Your task to perform on an android device: empty trash in the gmail app Image 0: 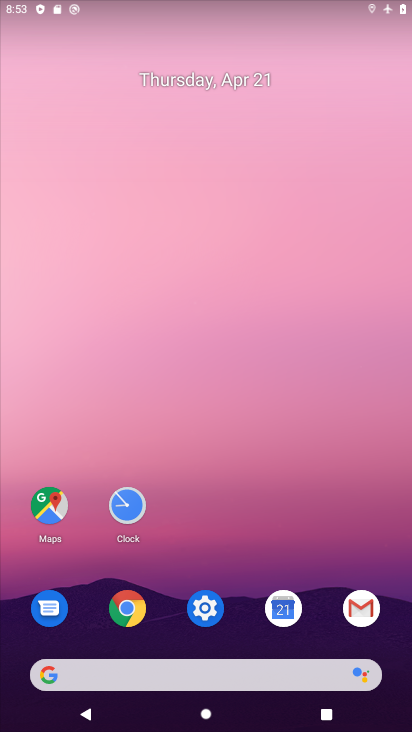
Step 0: click (360, 610)
Your task to perform on an android device: empty trash in the gmail app Image 1: 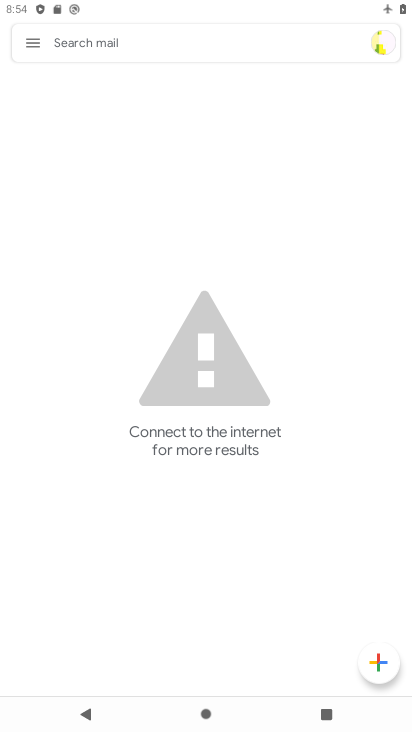
Step 1: click (29, 36)
Your task to perform on an android device: empty trash in the gmail app Image 2: 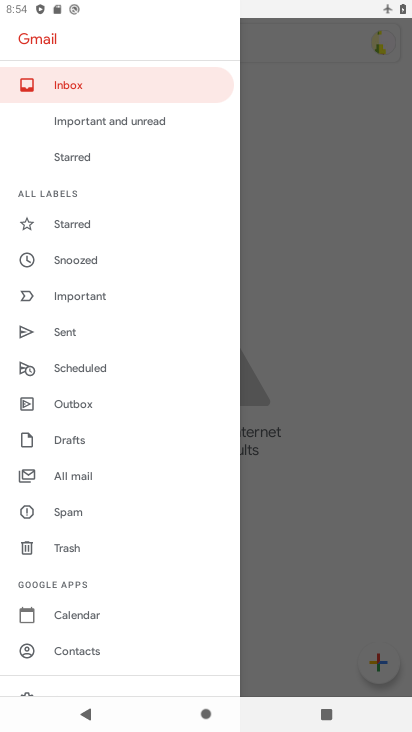
Step 2: click (71, 550)
Your task to perform on an android device: empty trash in the gmail app Image 3: 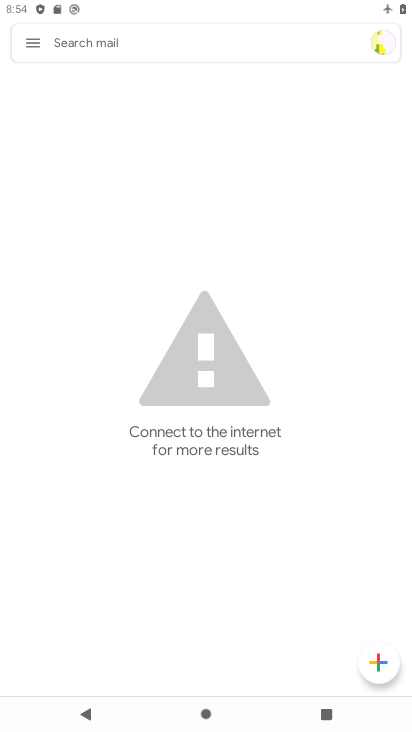
Step 3: task complete